Your task to perform on an android device: Open Google Maps and go to "Timeline" Image 0: 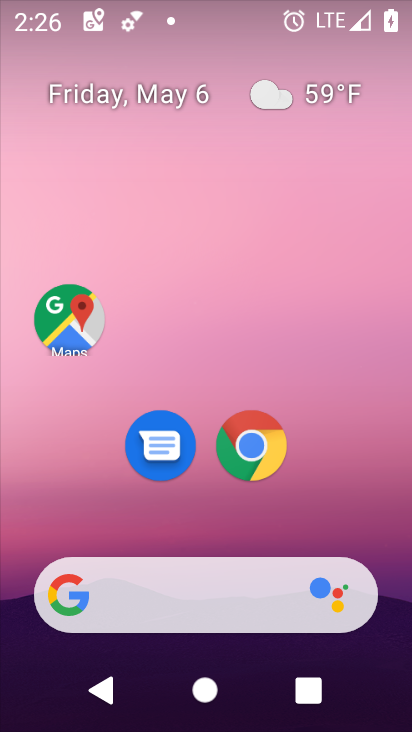
Step 0: drag from (323, 527) to (329, 143)
Your task to perform on an android device: Open Google Maps and go to "Timeline" Image 1: 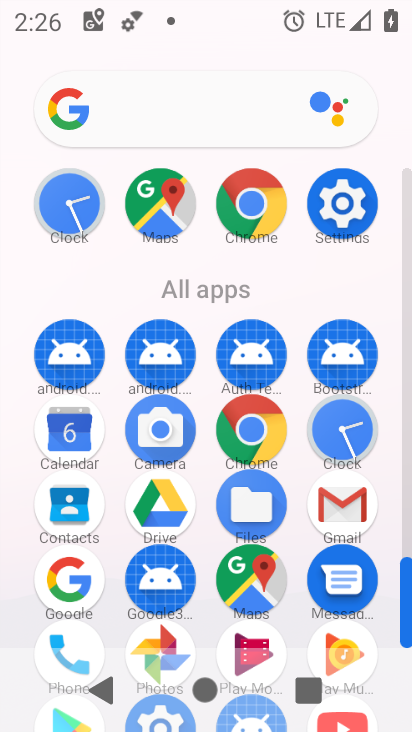
Step 1: click (244, 582)
Your task to perform on an android device: Open Google Maps and go to "Timeline" Image 2: 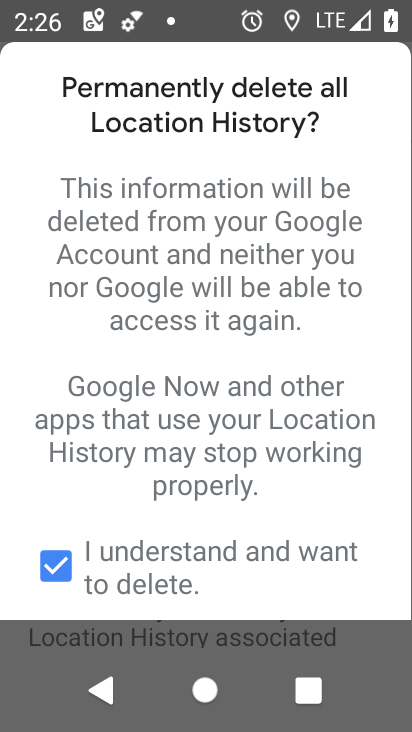
Step 2: press back button
Your task to perform on an android device: Open Google Maps and go to "Timeline" Image 3: 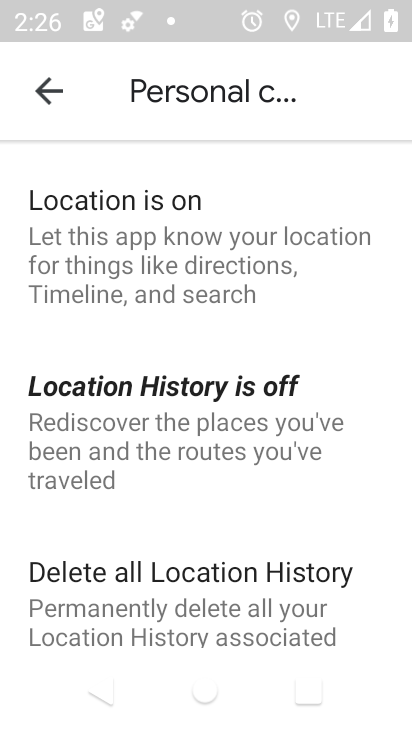
Step 3: click (54, 83)
Your task to perform on an android device: Open Google Maps and go to "Timeline" Image 4: 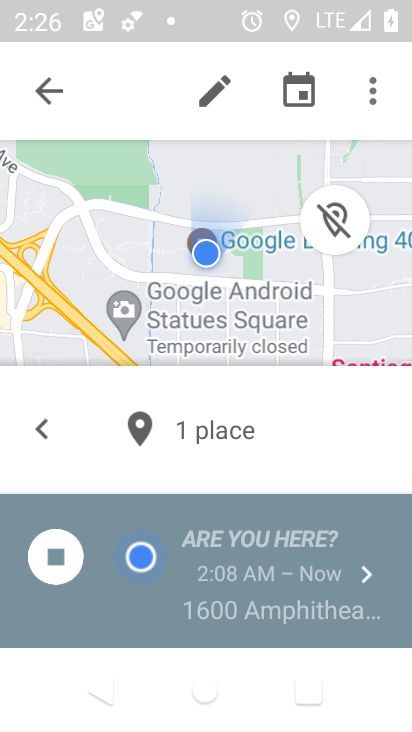
Step 4: task complete